Your task to perform on an android device: turn off smart reply in the gmail app Image 0: 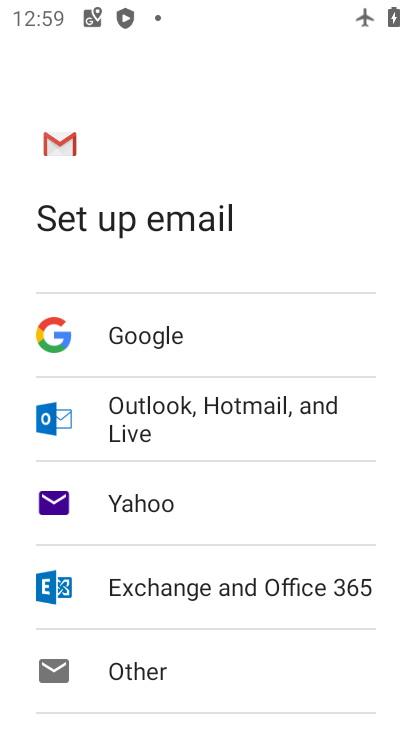
Step 0: press home button
Your task to perform on an android device: turn off smart reply in the gmail app Image 1: 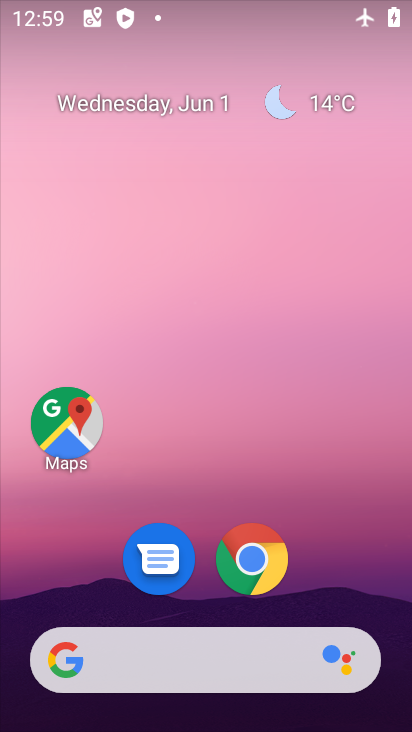
Step 1: drag from (402, 702) to (361, 97)
Your task to perform on an android device: turn off smart reply in the gmail app Image 2: 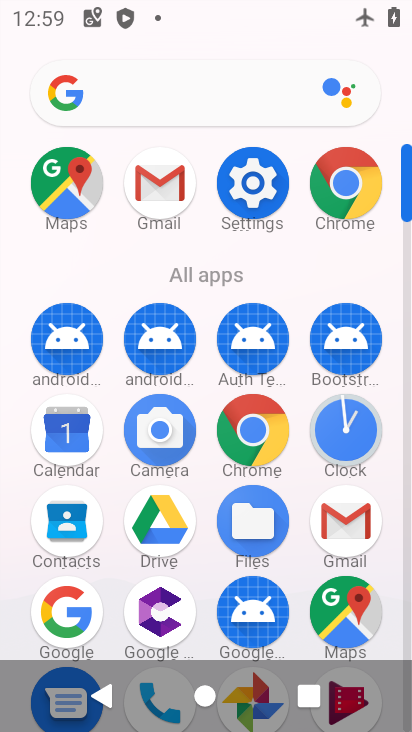
Step 2: click (332, 527)
Your task to perform on an android device: turn off smart reply in the gmail app Image 3: 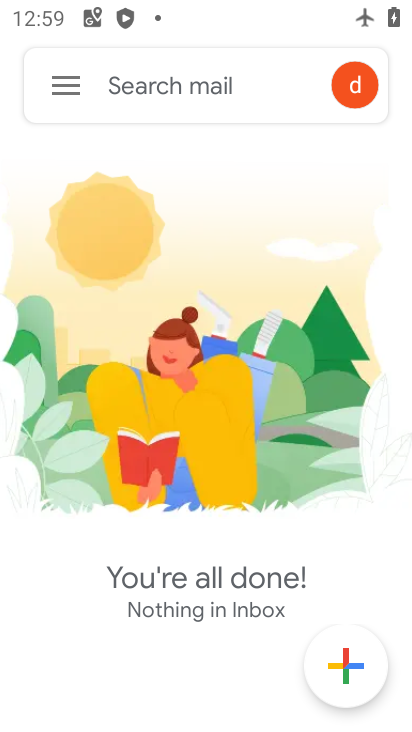
Step 3: click (67, 70)
Your task to perform on an android device: turn off smart reply in the gmail app Image 4: 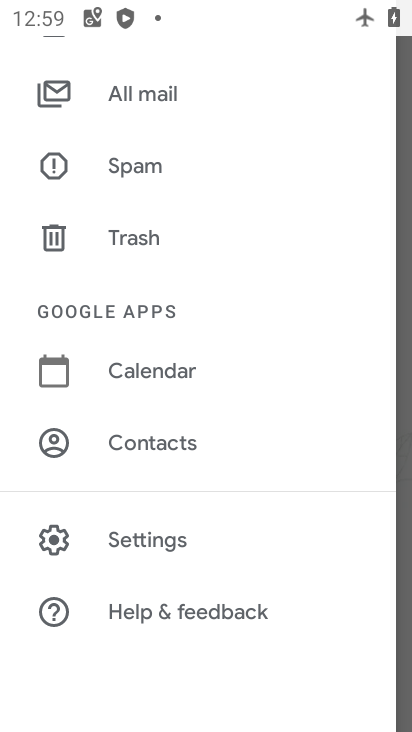
Step 4: click (164, 542)
Your task to perform on an android device: turn off smart reply in the gmail app Image 5: 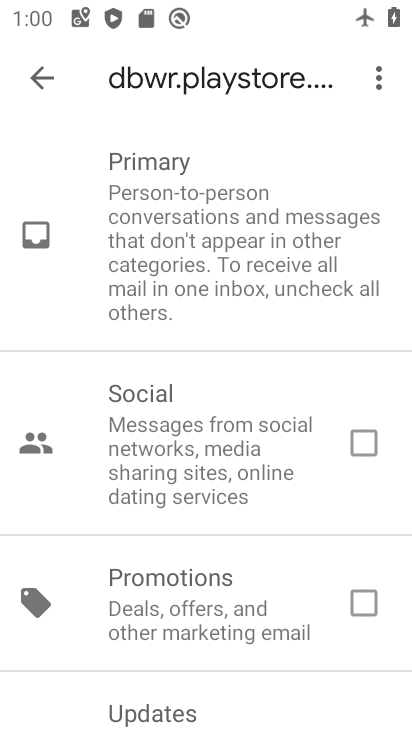
Step 5: drag from (170, 183) to (206, 436)
Your task to perform on an android device: turn off smart reply in the gmail app Image 6: 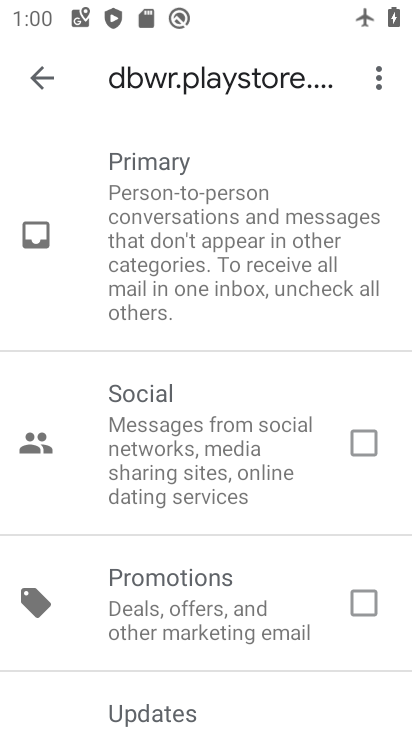
Step 6: click (32, 73)
Your task to perform on an android device: turn off smart reply in the gmail app Image 7: 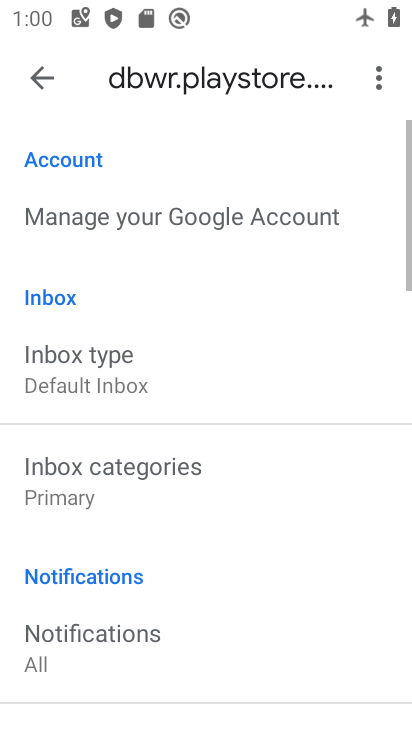
Step 7: drag from (281, 526) to (279, 269)
Your task to perform on an android device: turn off smart reply in the gmail app Image 8: 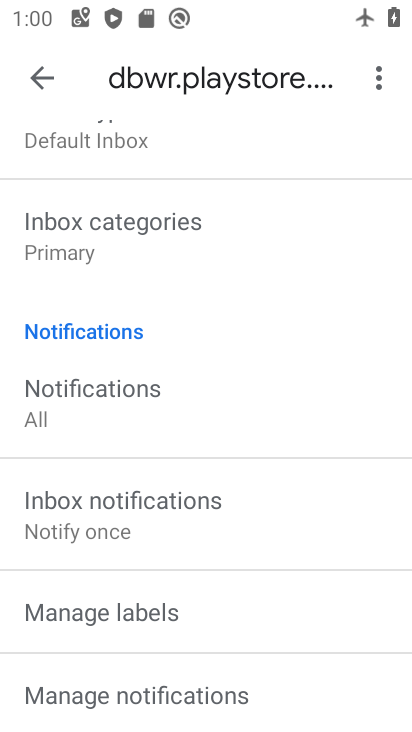
Step 8: drag from (214, 685) to (214, 306)
Your task to perform on an android device: turn off smart reply in the gmail app Image 9: 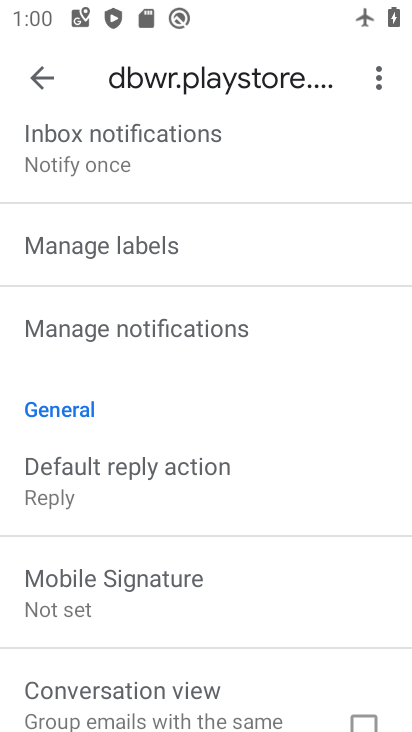
Step 9: drag from (271, 655) to (244, 266)
Your task to perform on an android device: turn off smart reply in the gmail app Image 10: 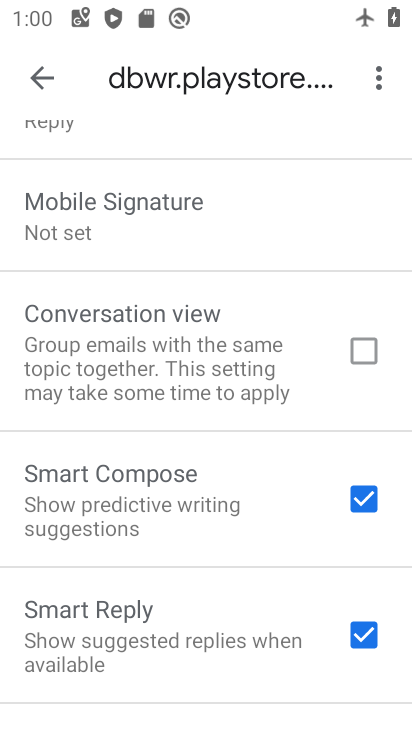
Step 10: click (355, 633)
Your task to perform on an android device: turn off smart reply in the gmail app Image 11: 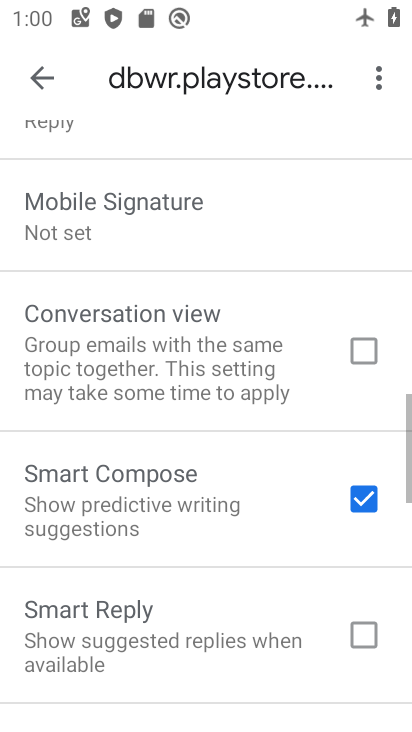
Step 11: task complete